Your task to perform on an android device: open app "WhatsApp Messenger" (install if not already installed), go to login, and select forgot password Image 0: 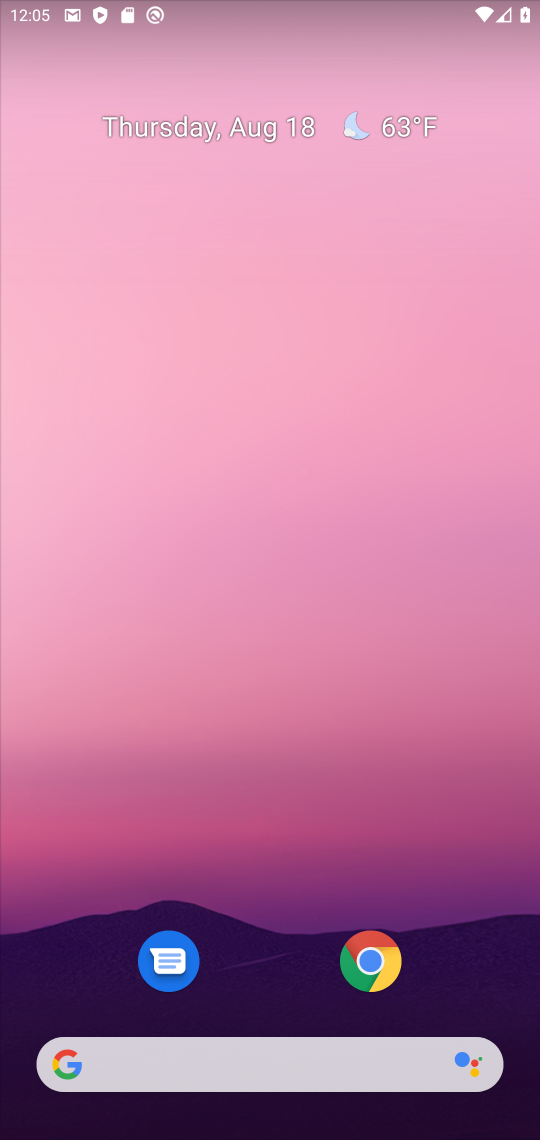
Step 0: drag from (176, 1059) to (303, 348)
Your task to perform on an android device: open app "WhatsApp Messenger" (install if not already installed), go to login, and select forgot password Image 1: 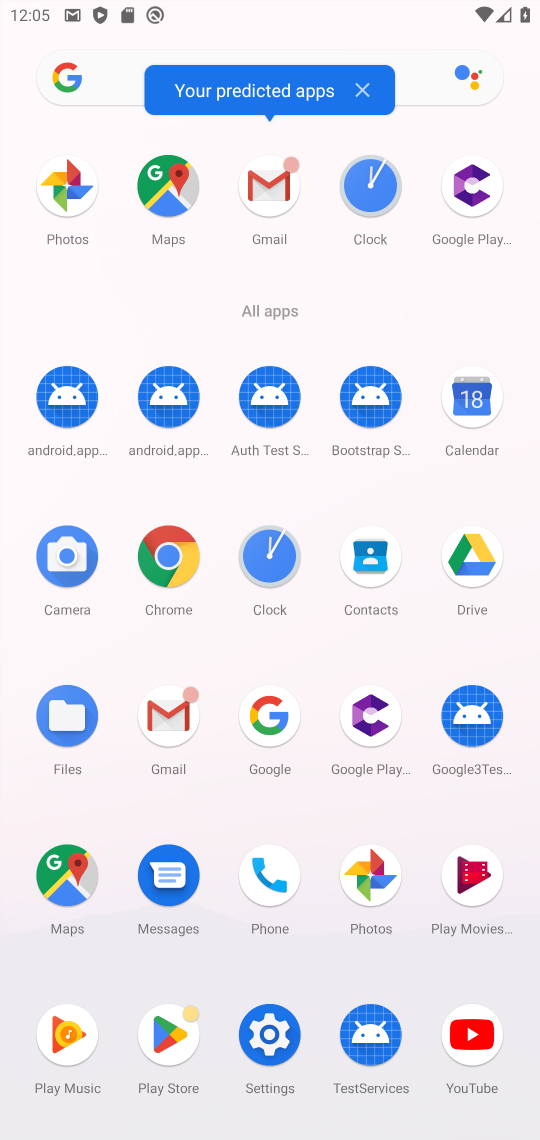
Step 1: click (174, 1032)
Your task to perform on an android device: open app "WhatsApp Messenger" (install if not already installed), go to login, and select forgot password Image 2: 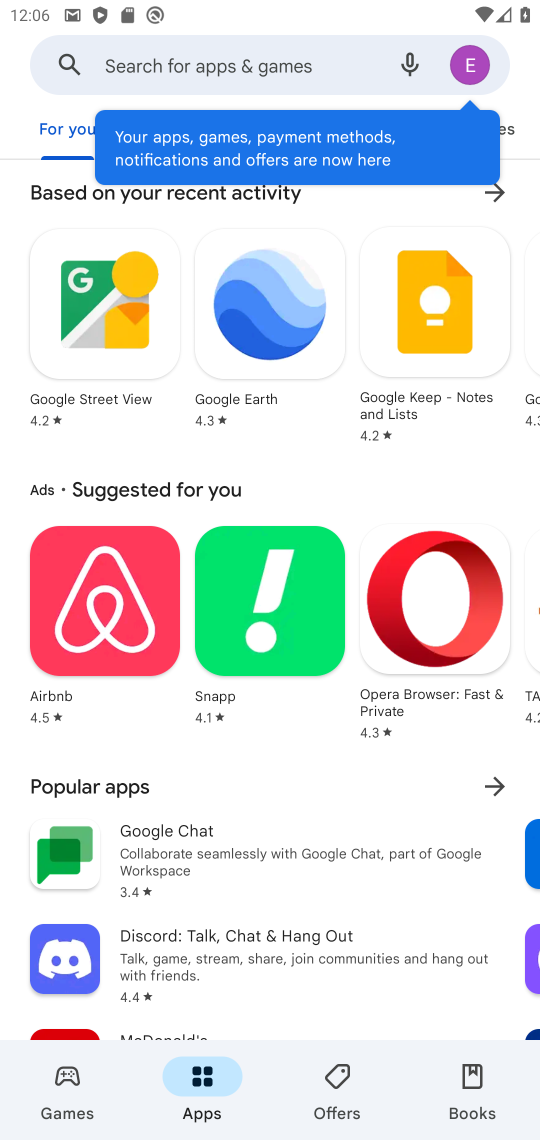
Step 2: click (249, 45)
Your task to perform on an android device: open app "WhatsApp Messenger" (install if not already installed), go to login, and select forgot password Image 3: 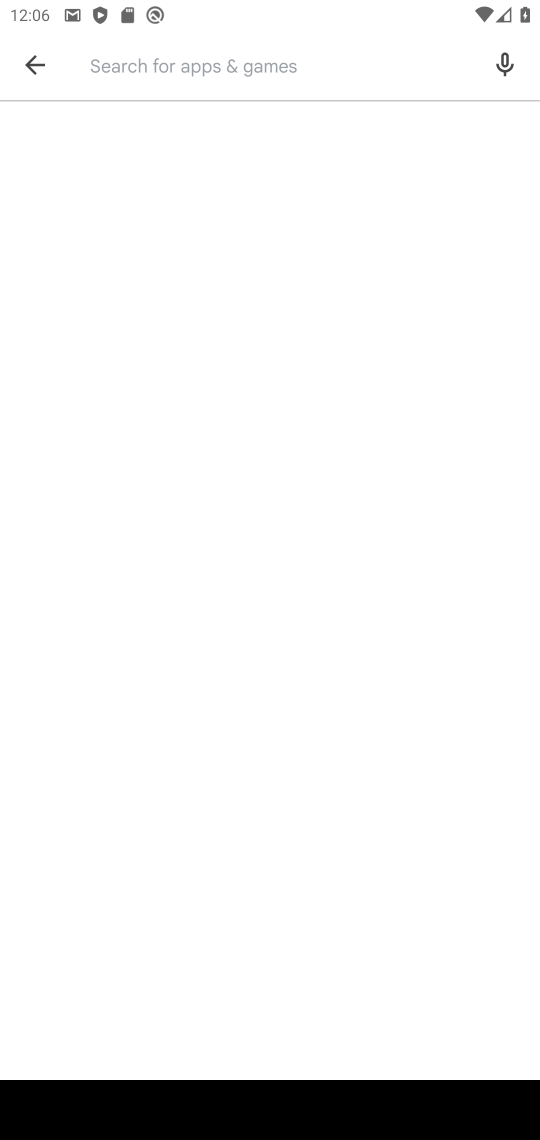
Step 3: type "WhatsApp Messenger "
Your task to perform on an android device: open app "WhatsApp Messenger" (install if not already installed), go to login, and select forgot password Image 4: 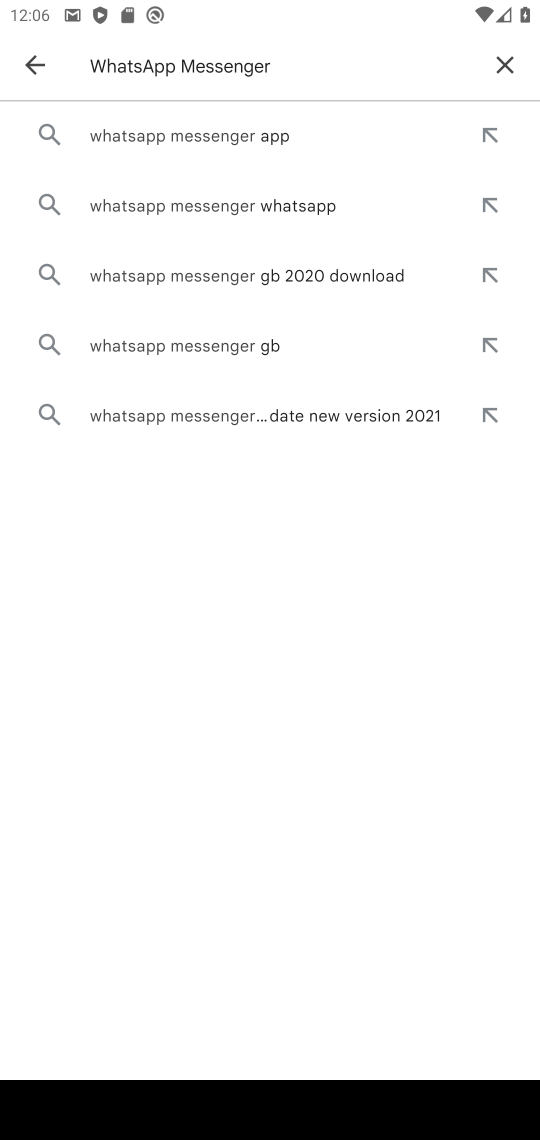
Step 4: click (227, 136)
Your task to perform on an android device: open app "WhatsApp Messenger" (install if not already installed), go to login, and select forgot password Image 5: 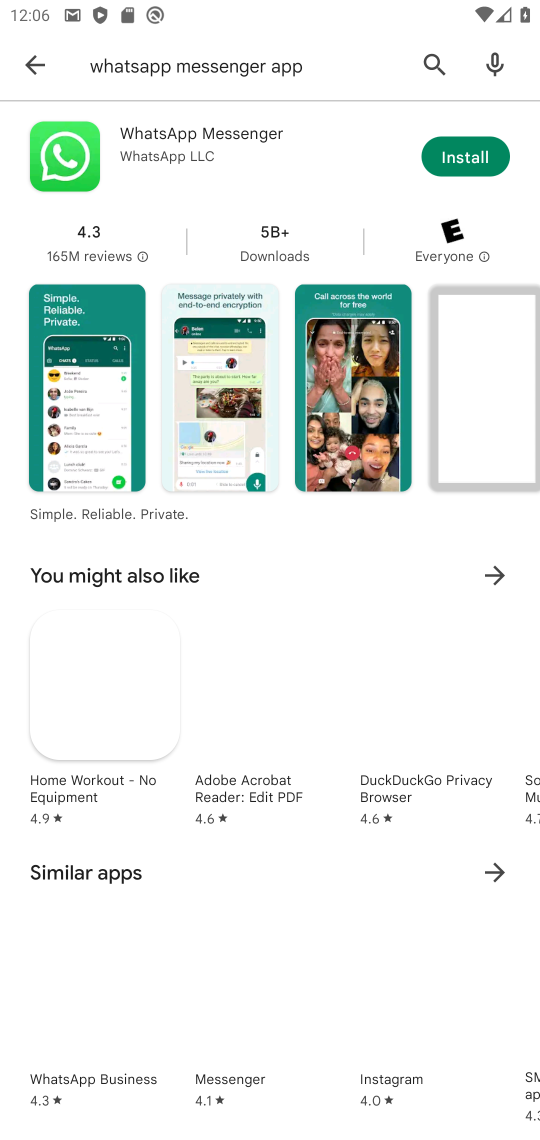
Step 5: click (460, 139)
Your task to perform on an android device: open app "WhatsApp Messenger" (install if not already installed), go to login, and select forgot password Image 6: 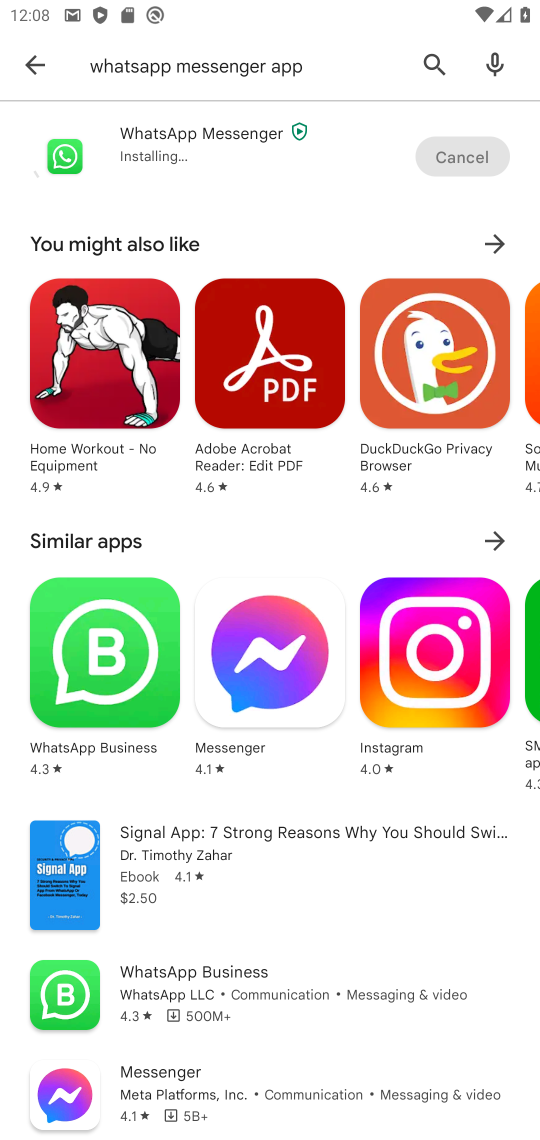
Step 6: task complete